Your task to perform on an android device: Check the weather Image 0: 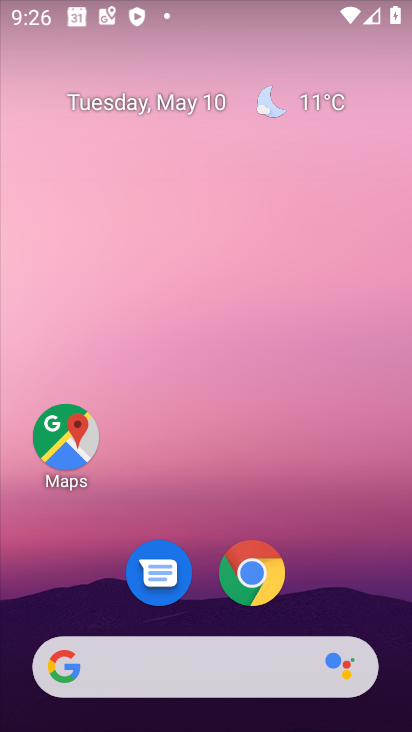
Step 0: click (325, 101)
Your task to perform on an android device: Check the weather Image 1: 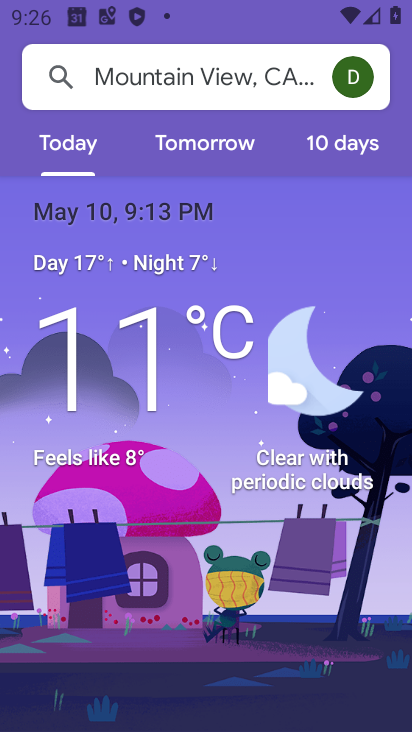
Step 1: task complete